Your task to perform on an android device: Open the phone app and click the voicemail tab. Image 0: 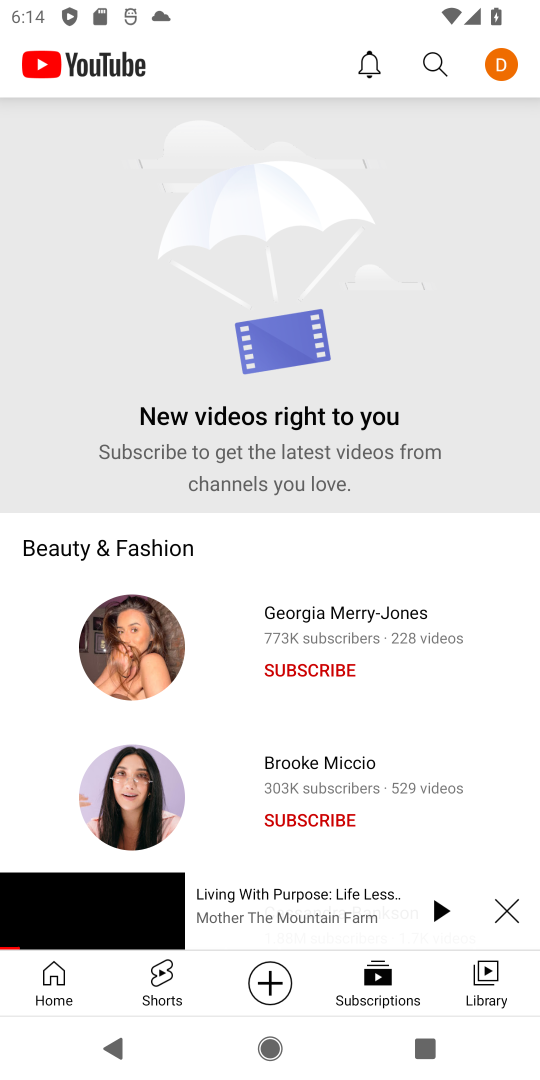
Step 0: press back button
Your task to perform on an android device: Open the phone app and click the voicemail tab. Image 1: 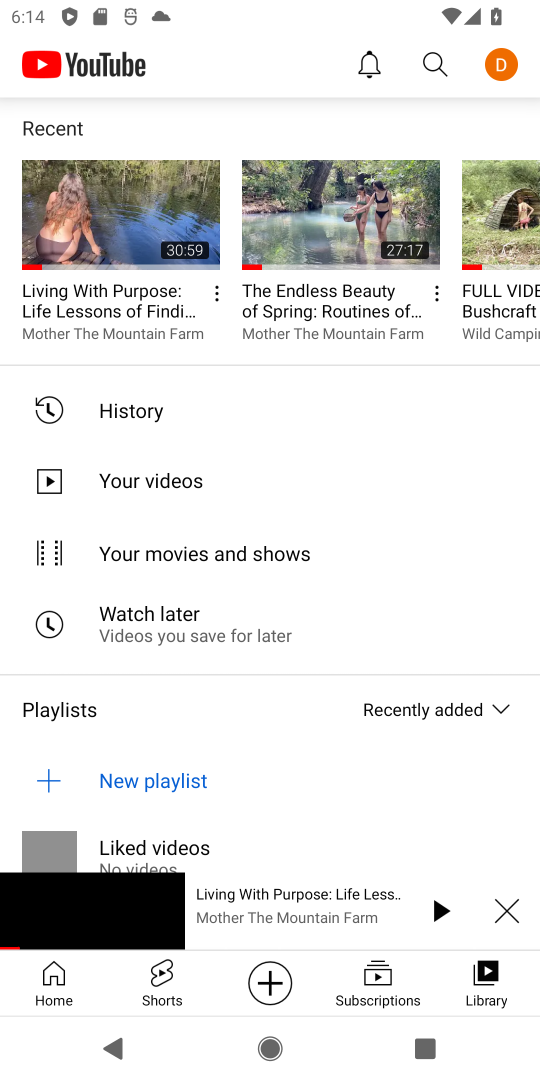
Step 1: press back button
Your task to perform on an android device: Open the phone app and click the voicemail tab. Image 2: 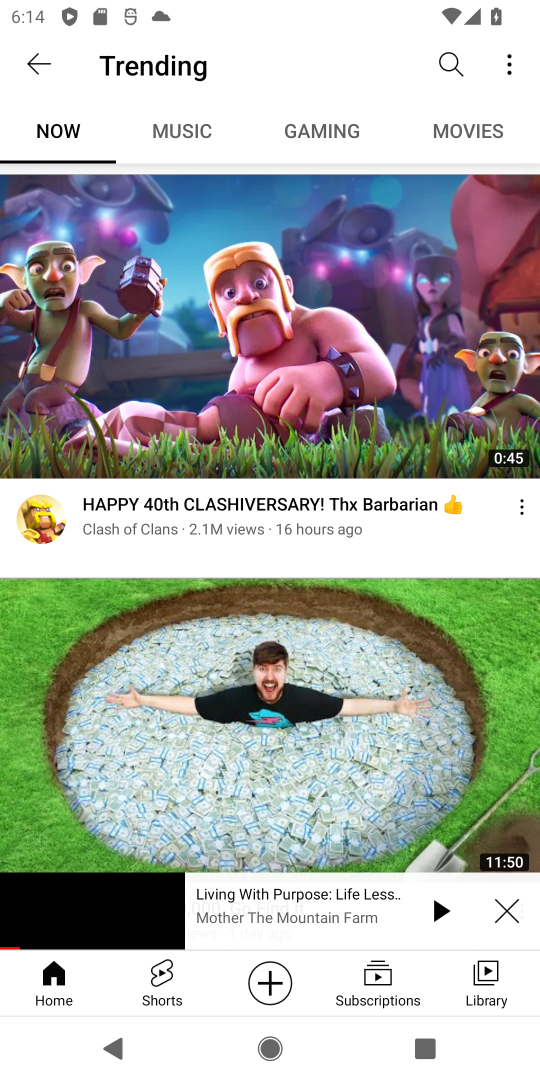
Step 2: press home button
Your task to perform on an android device: Open the phone app and click the voicemail tab. Image 3: 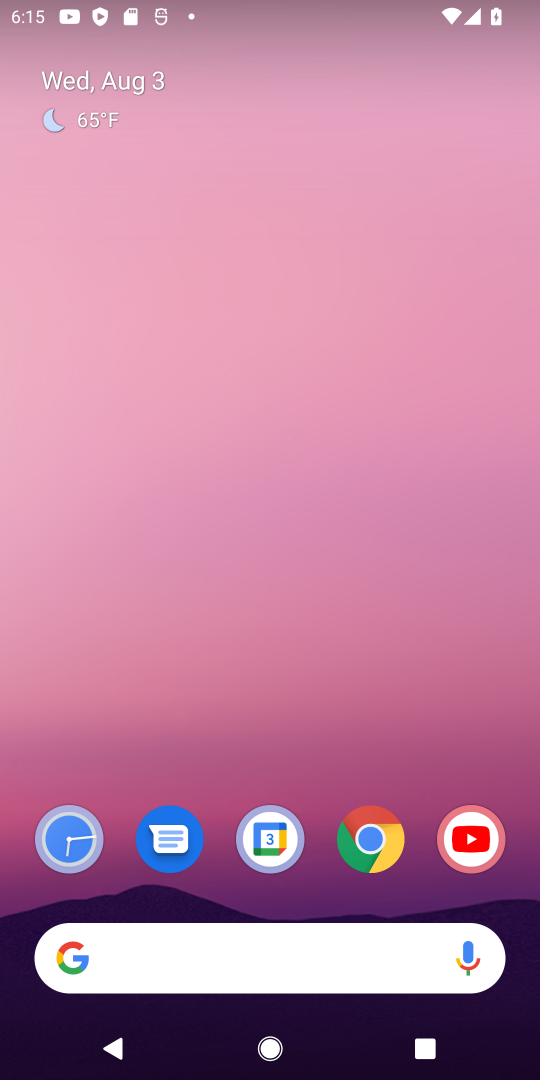
Step 3: drag from (238, 815) to (407, 18)
Your task to perform on an android device: Open the phone app and click the voicemail tab. Image 4: 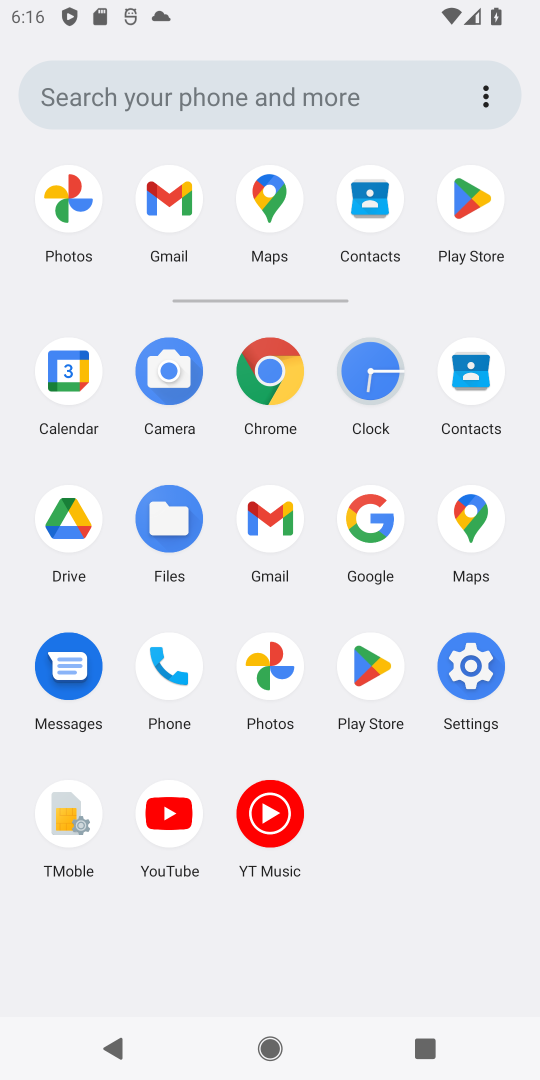
Step 4: click (157, 677)
Your task to perform on an android device: Open the phone app and click the voicemail tab. Image 5: 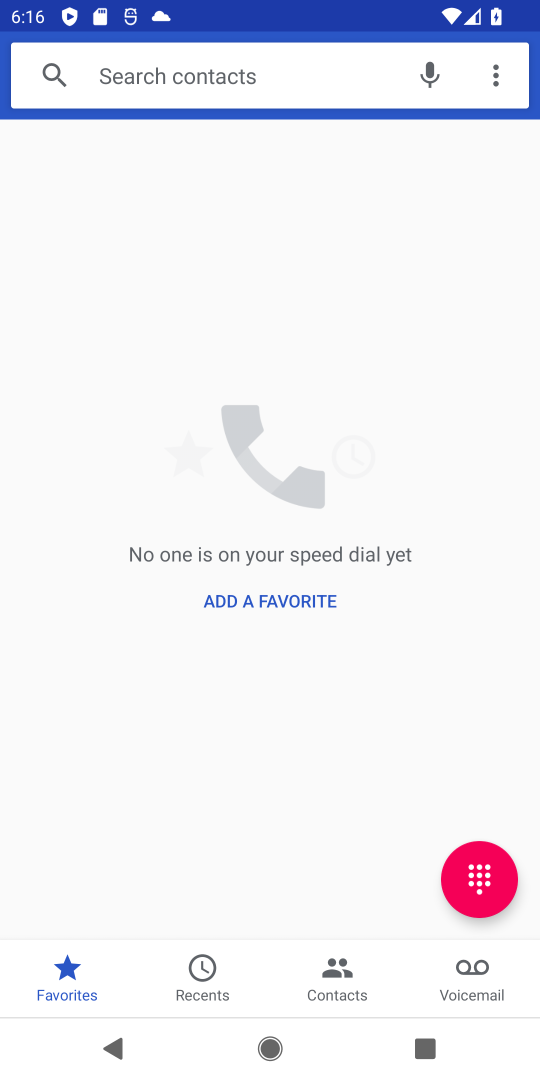
Step 5: click (478, 994)
Your task to perform on an android device: Open the phone app and click the voicemail tab. Image 6: 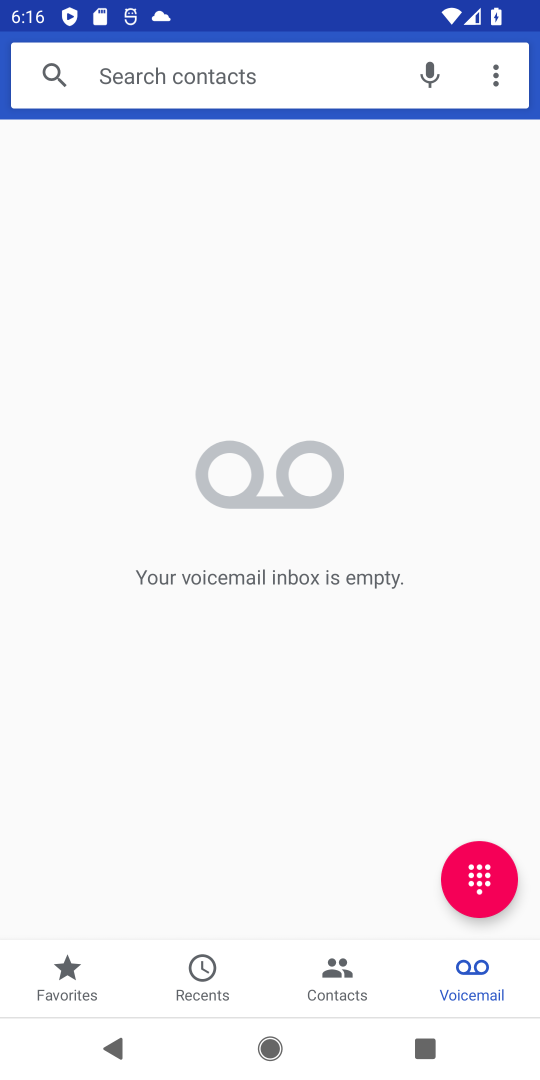
Step 6: task complete